Your task to perform on an android device: turn off airplane mode Image 0: 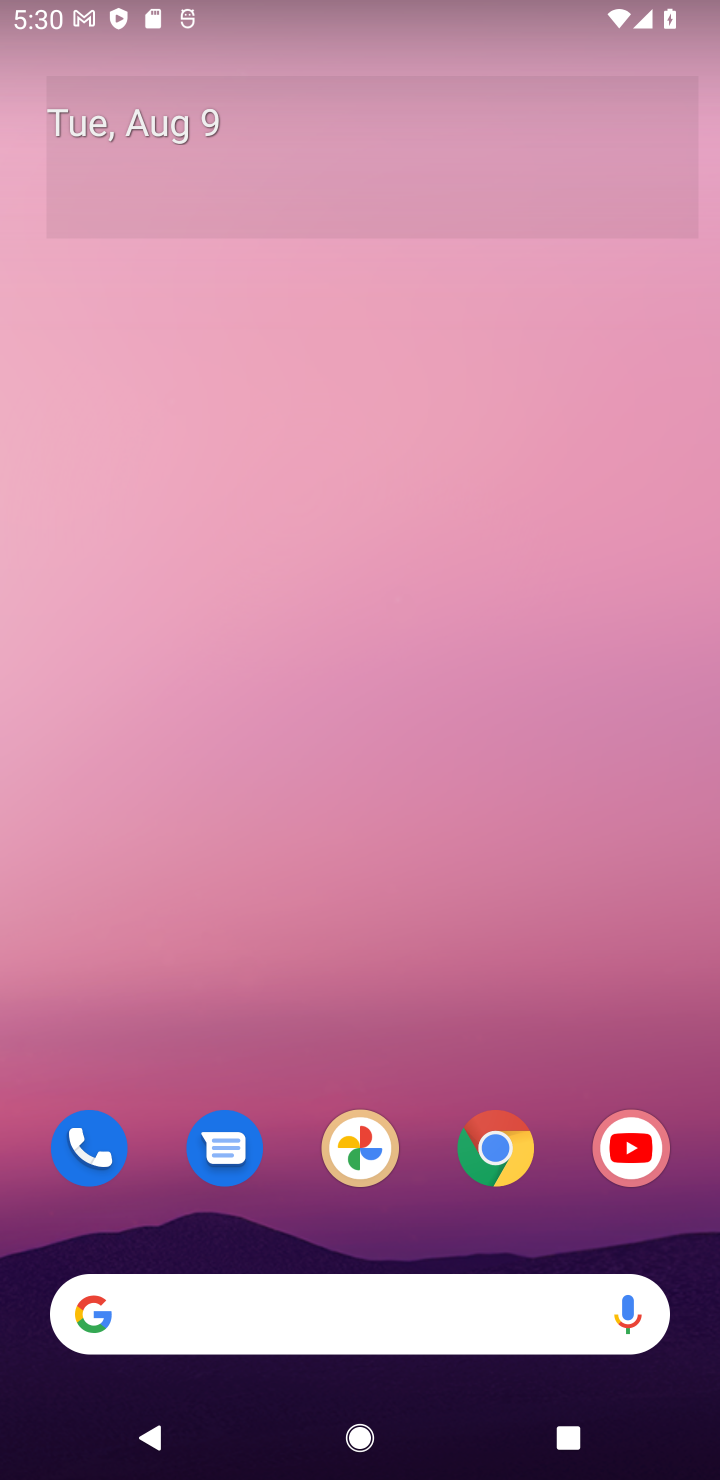
Step 0: drag from (320, 936) to (436, 27)
Your task to perform on an android device: turn off airplane mode Image 1: 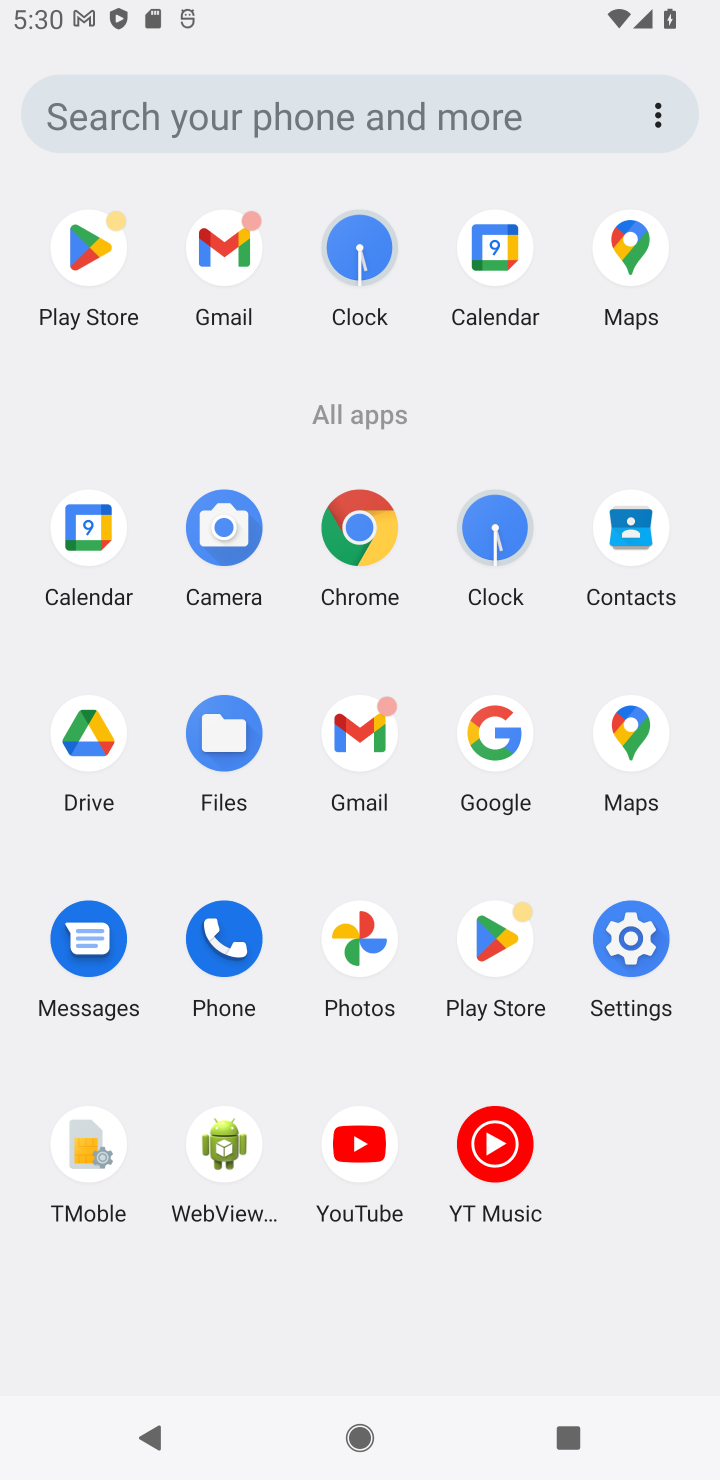
Step 1: click (646, 994)
Your task to perform on an android device: turn off airplane mode Image 2: 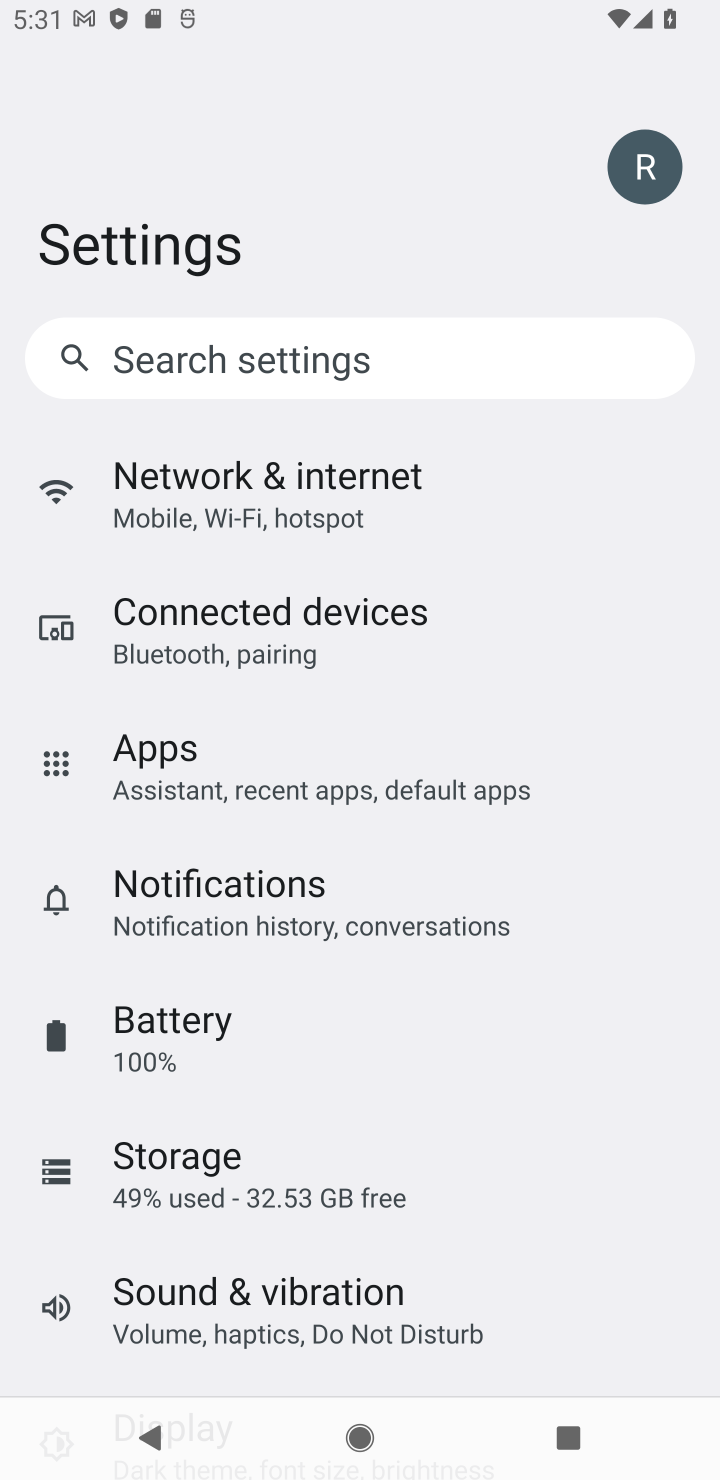
Step 2: click (324, 489)
Your task to perform on an android device: turn off airplane mode Image 3: 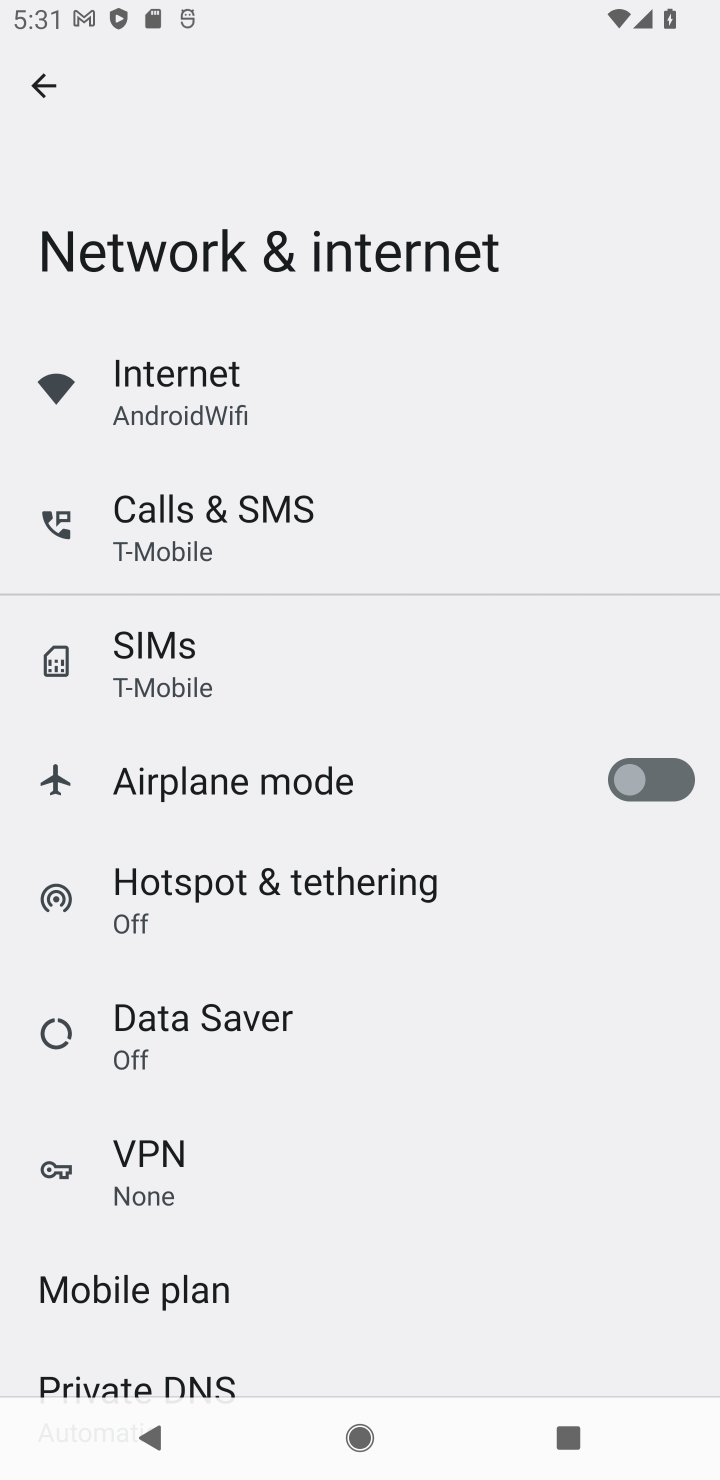
Step 3: task complete